Your task to perform on an android device: turn on translation in the chrome app Image 0: 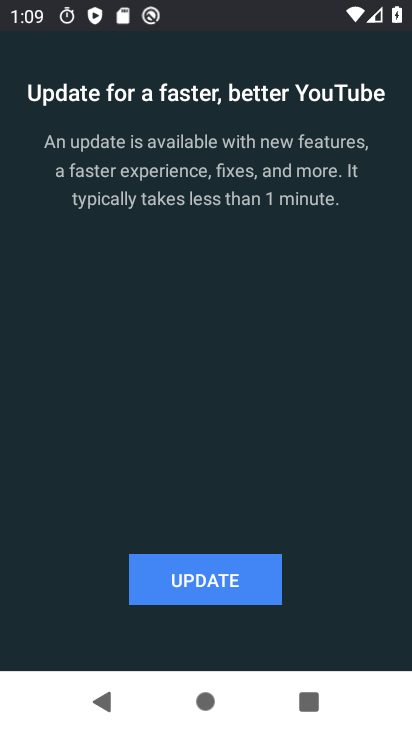
Step 0: press home button
Your task to perform on an android device: turn on translation in the chrome app Image 1: 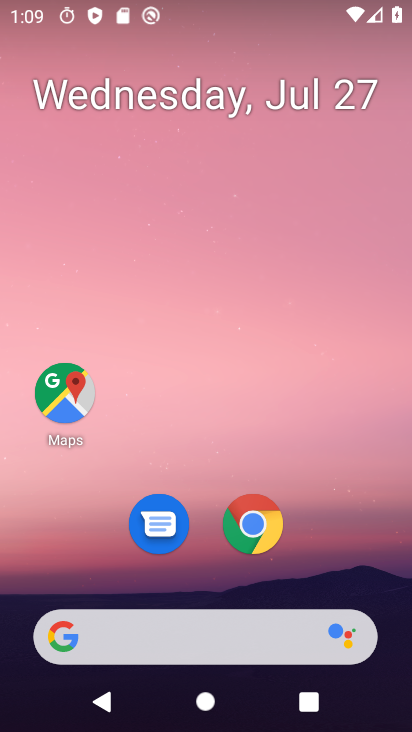
Step 1: click (261, 527)
Your task to perform on an android device: turn on translation in the chrome app Image 2: 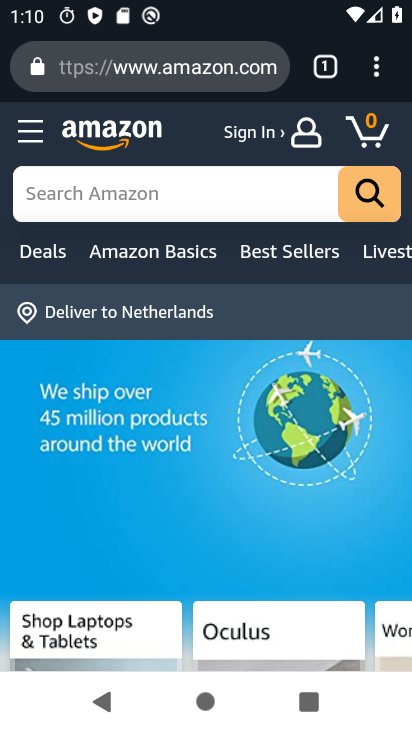
Step 2: click (373, 73)
Your task to perform on an android device: turn on translation in the chrome app Image 3: 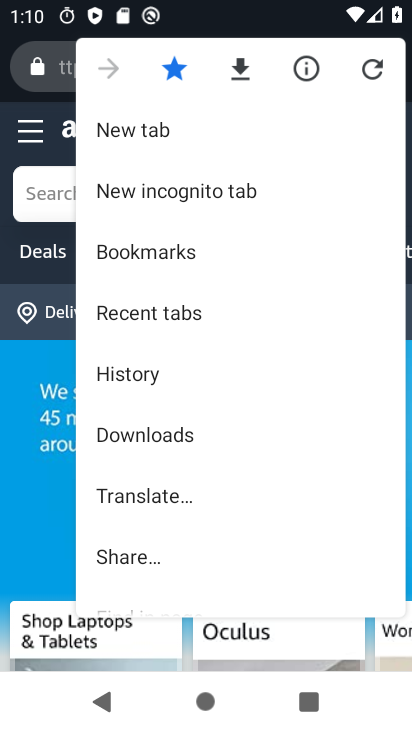
Step 3: drag from (238, 526) to (277, 197)
Your task to perform on an android device: turn on translation in the chrome app Image 4: 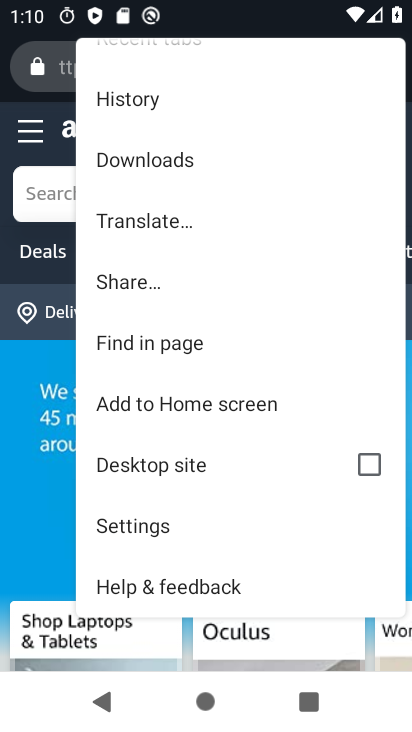
Step 4: click (163, 528)
Your task to perform on an android device: turn on translation in the chrome app Image 5: 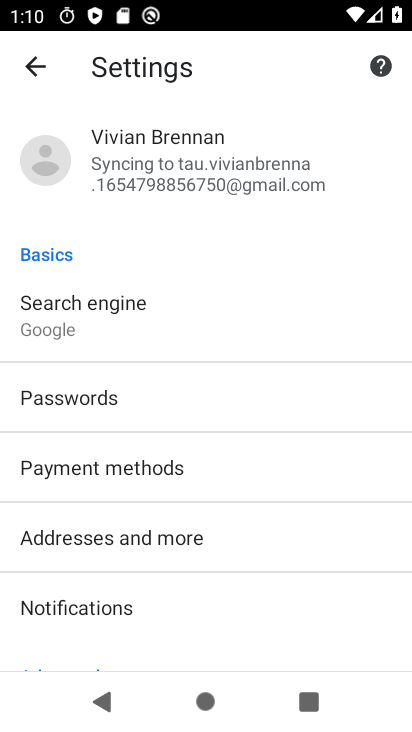
Step 5: drag from (224, 455) to (207, 170)
Your task to perform on an android device: turn on translation in the chrome app Image 6: 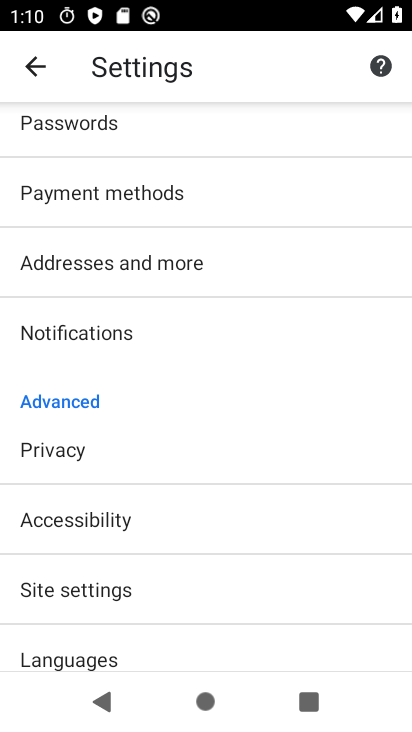
Step 6: drag from (224, 527) to (237, 187)
Your task to perform on an android device: turn on translation in the chrome app Image 7: 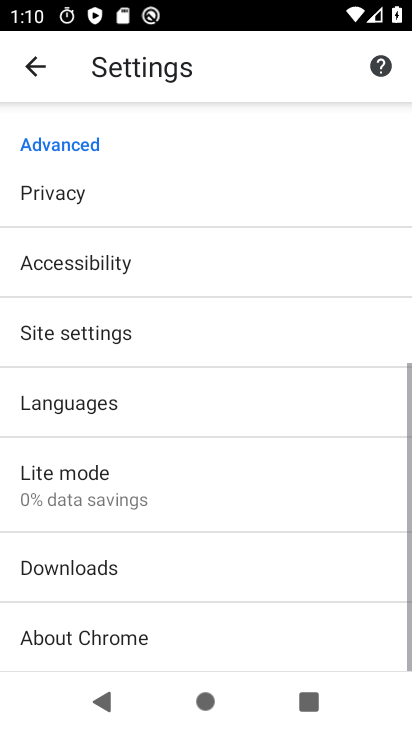
Step 7: click (180, 402)
Your task to perform on an android device: turn on translation in the chrome app Image 8: 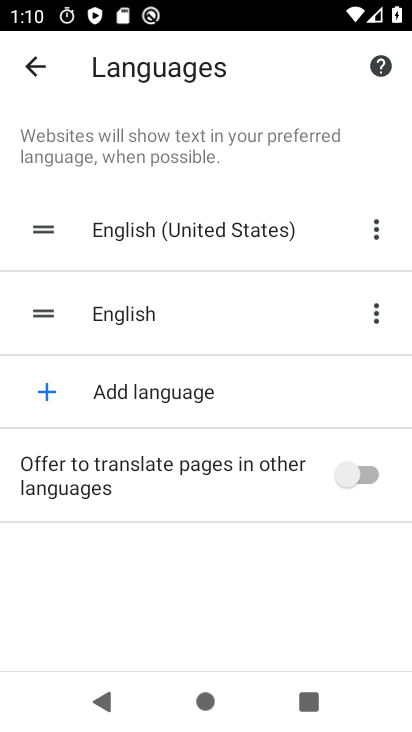
Step 8: click (350, 468)
Your task to perform on an android device: turn on translation in the chrome app Image 9: 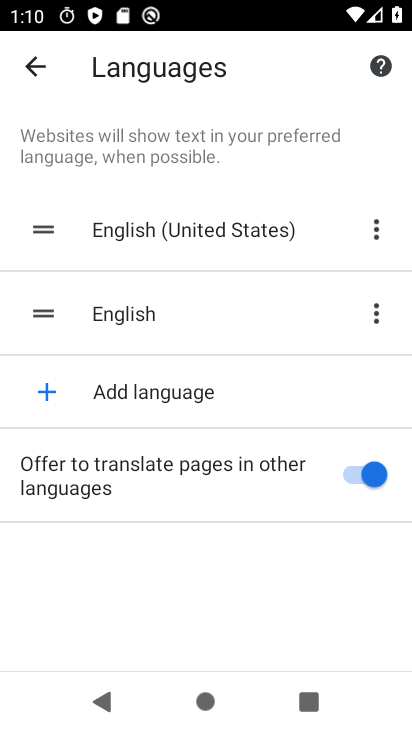
Step 9: task complete